Your task to perform on an android device: turn on airplane mode Image 0: 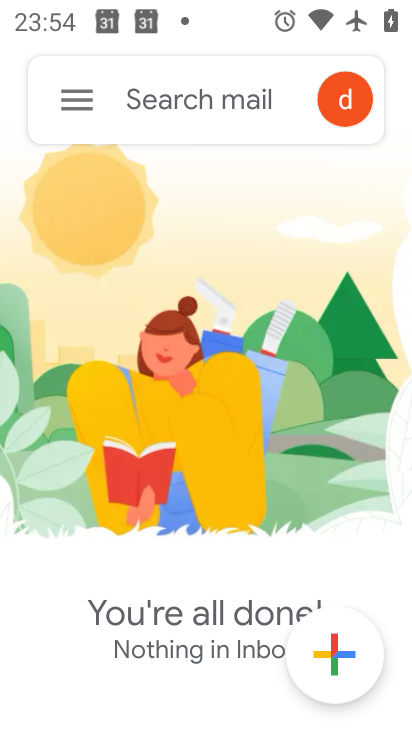
Step 0: press home button
Your task to perform on an android device: turn on airplane mode Image 1: 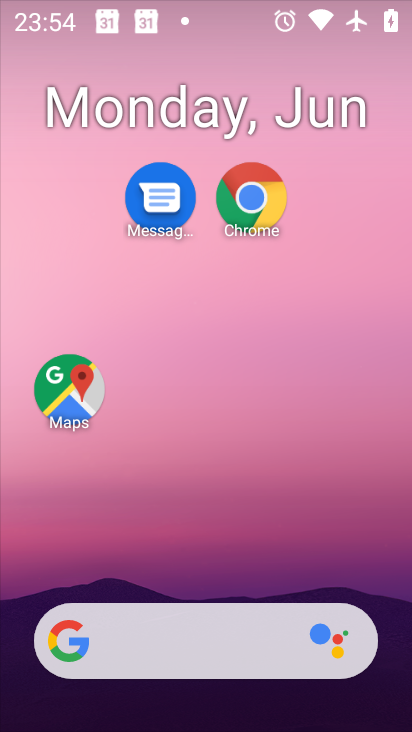
Step 1: drag from (226, 545) to (228, 168)
Your task to perform on an android device: turn on airplane mode Image 2: 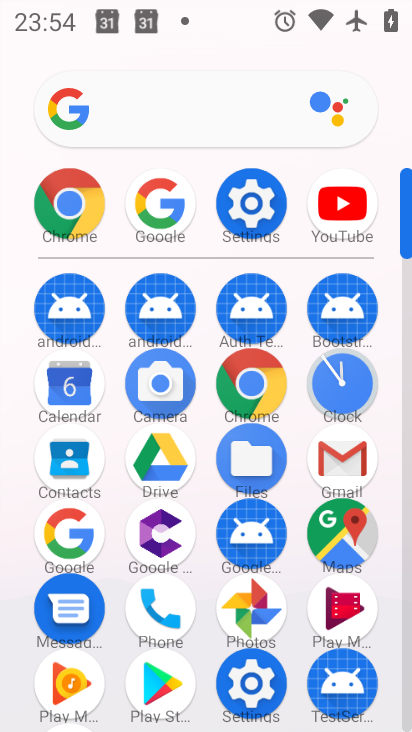
Step 2: click (227, 188)
Your task to perform on an android device: turn on airplane mode Image 3: 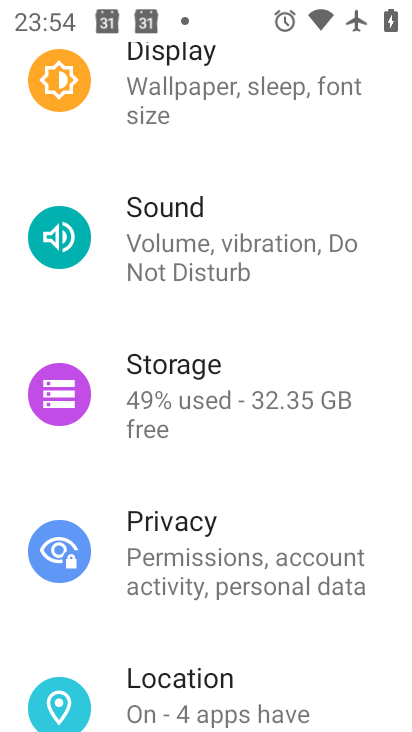
Step 3: drag from (245, 243) to (261, 589)
Your task to perform on an android device: turn on airplane mode Image 4: 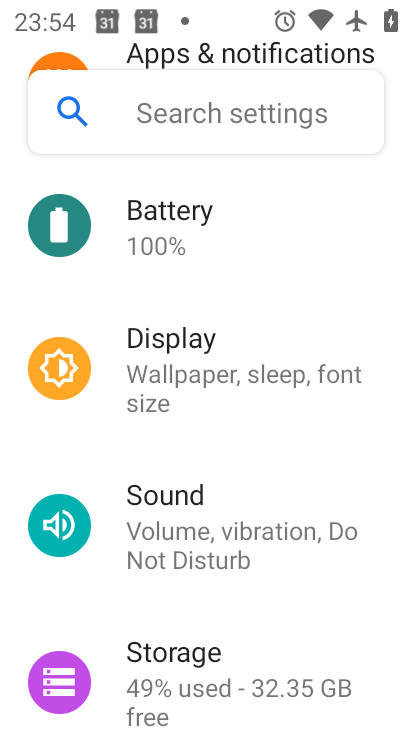
Step 4: drag from (251, 231) to (251, 493)
Your task to perform on an android device: turn on airplane mode Image 5: 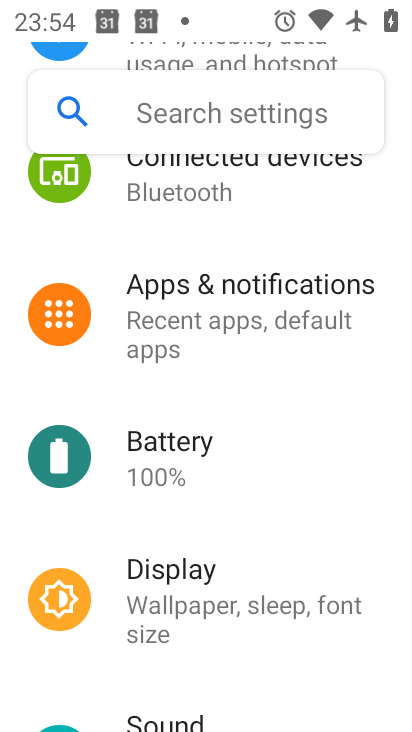
Step 5: drag from (233, 204) to (256, 535)
Your task to perform on an android device: turn on airplane mode Image 6: 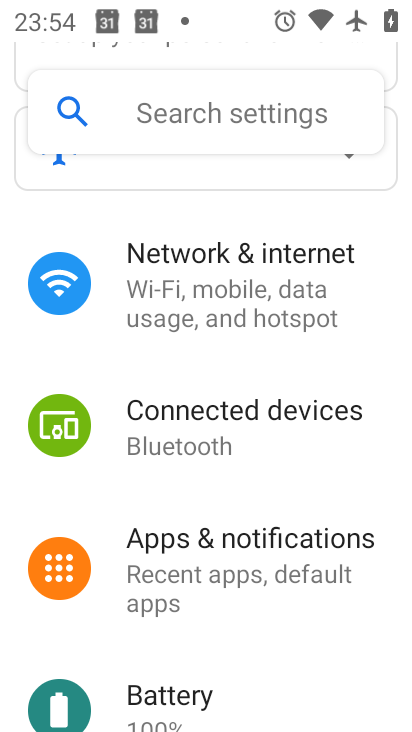
Step 6: click (256, 305)
Your task to perform on an android device: turn on airplane mode Image 7: 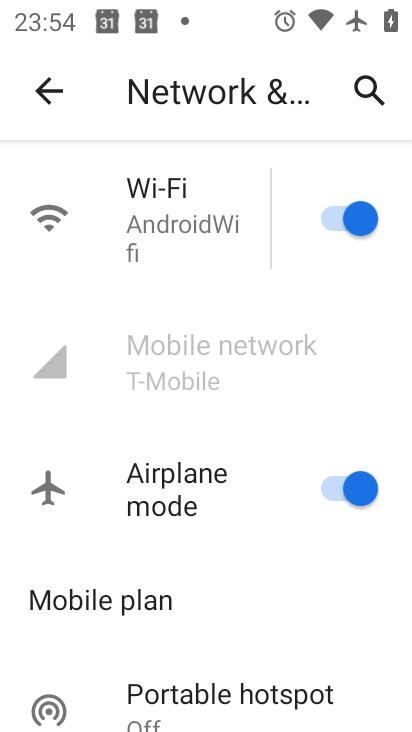
Step 7: task complete